Your task to perform on an android device: move a message to another label in the gmail app Image 0: 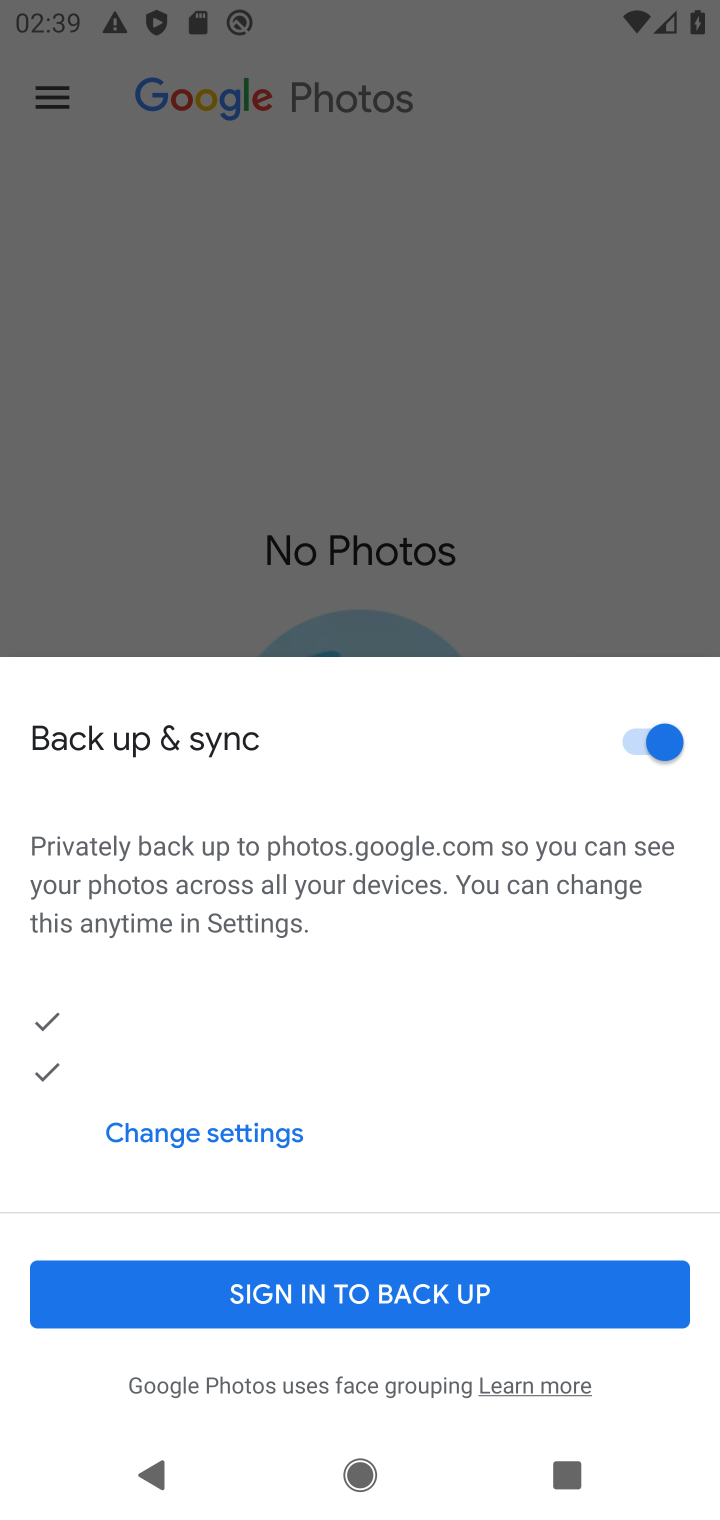
Step 0: press home button
Your task to perform on an android device: move a message to another label in the gmail app Image 1: 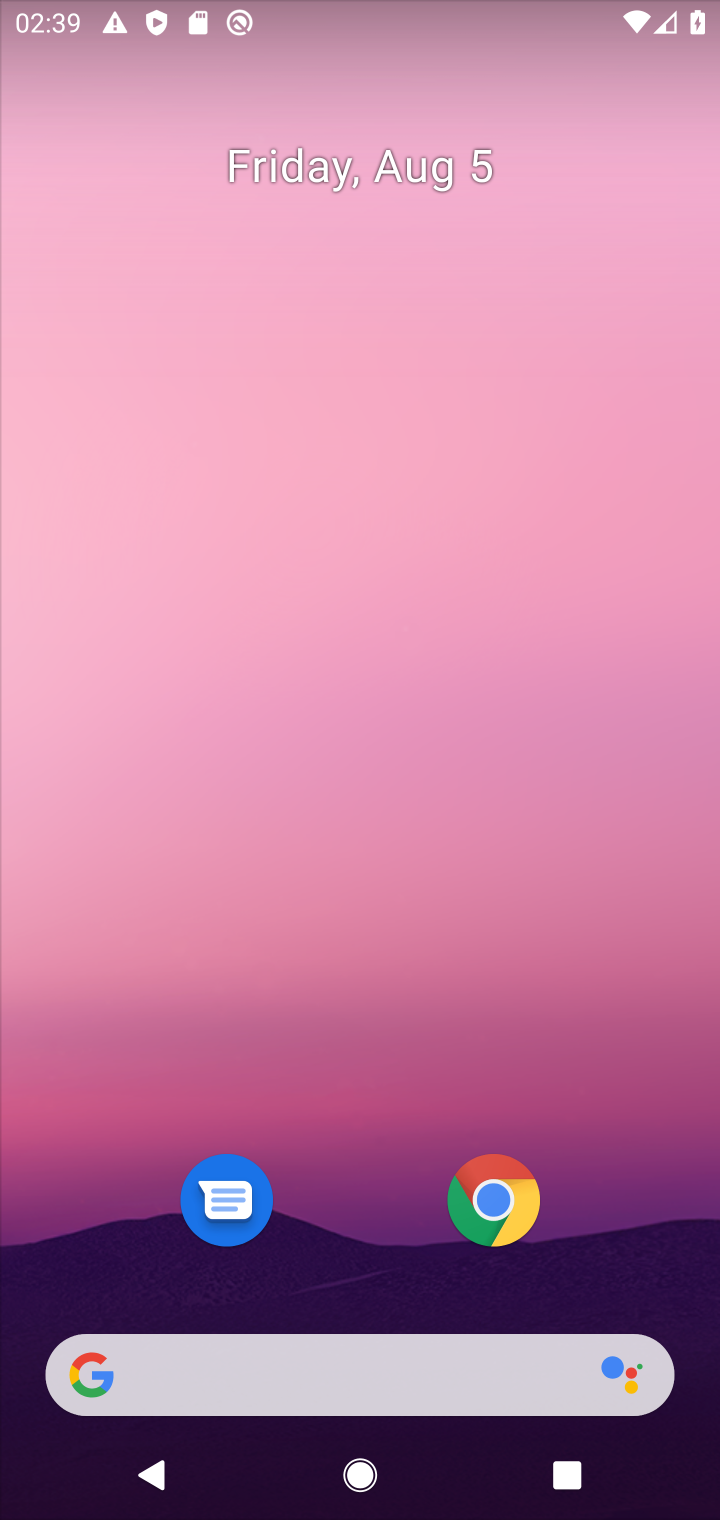
Step 1: drag from (344, 1019) to (347, 436)
Your task to perform on an android device: move a message to another label in the gmail app Image 2: 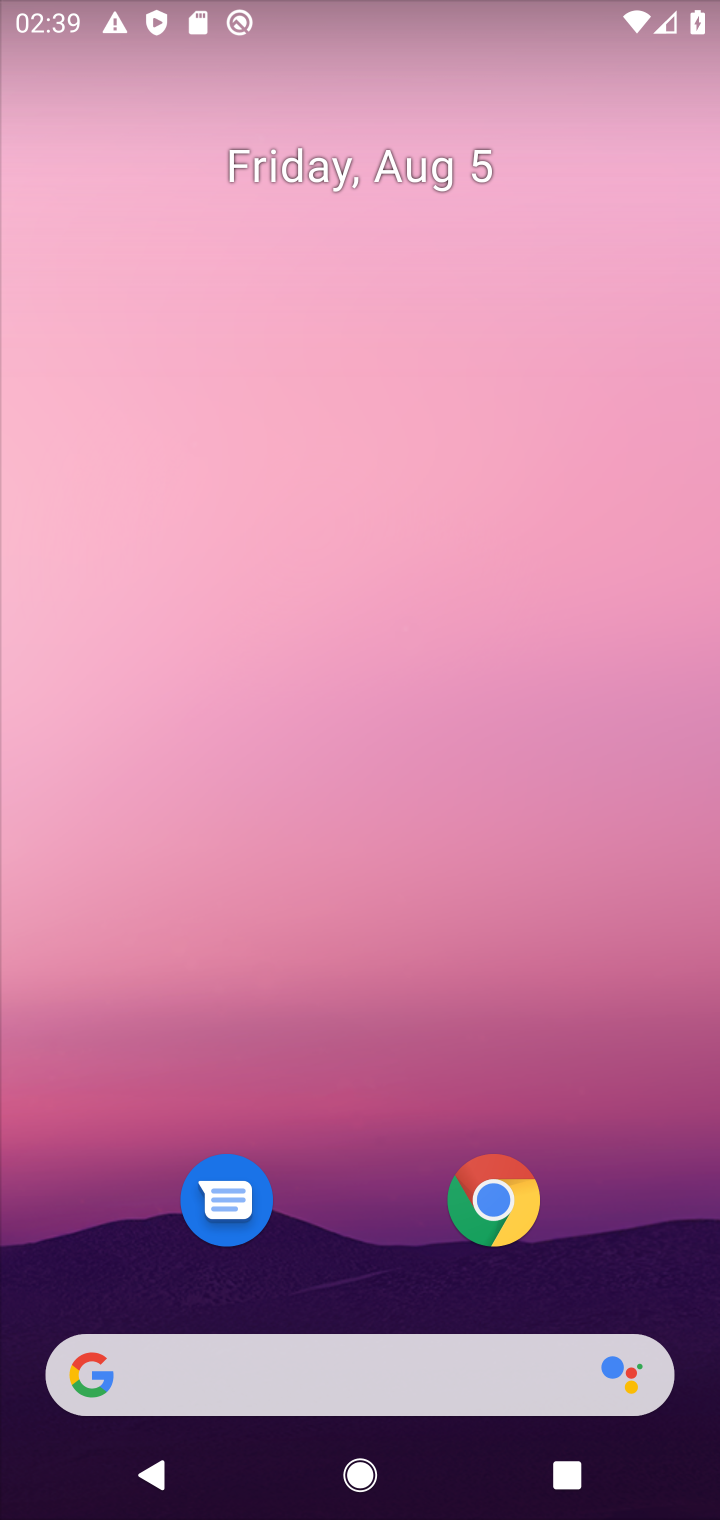
Step 2: drag from (384, 1114) to (384, 283)
Your task to perform on an android device: move a message to another label in the gmail app Image 3: 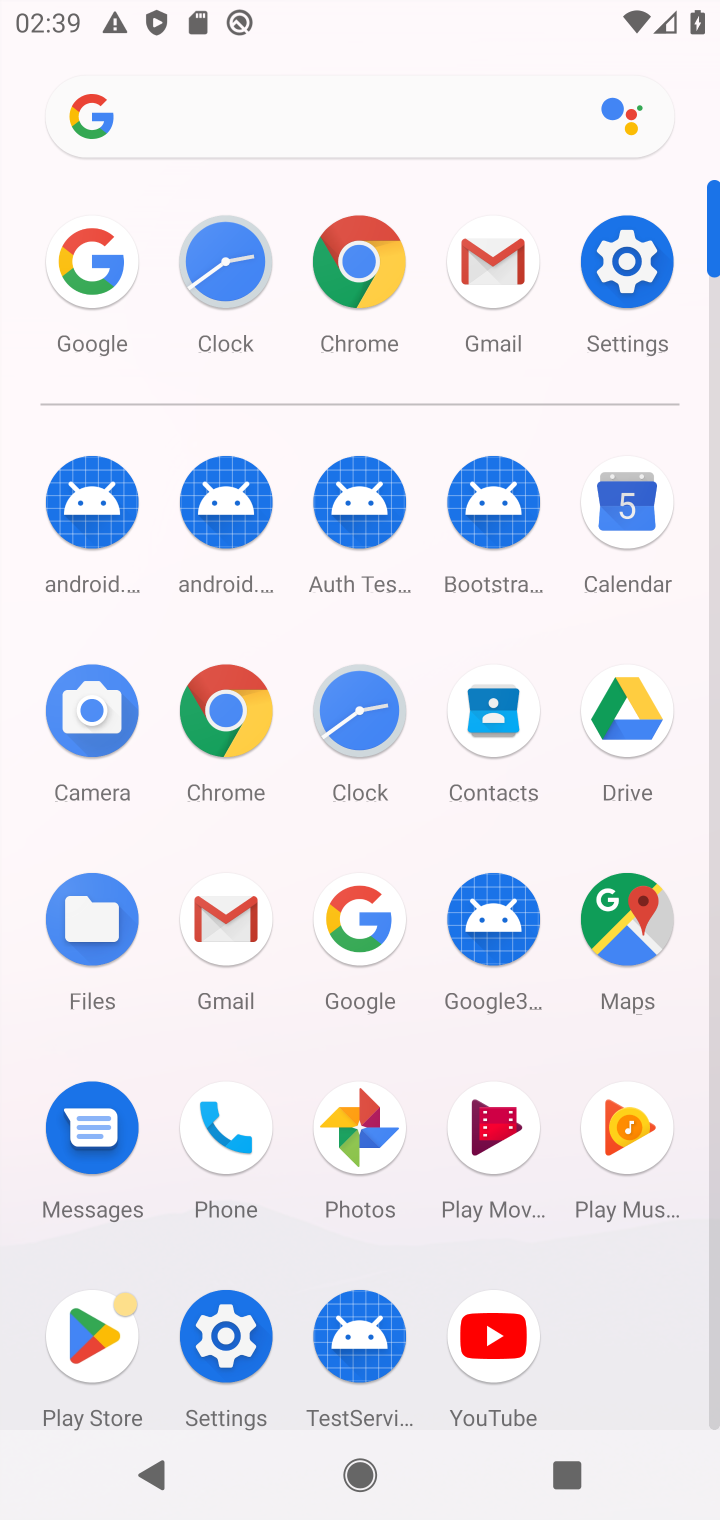
Step 3: click (490, 282)
Your task to perform on an android device: move a message to another label in the gmail app Image 4: 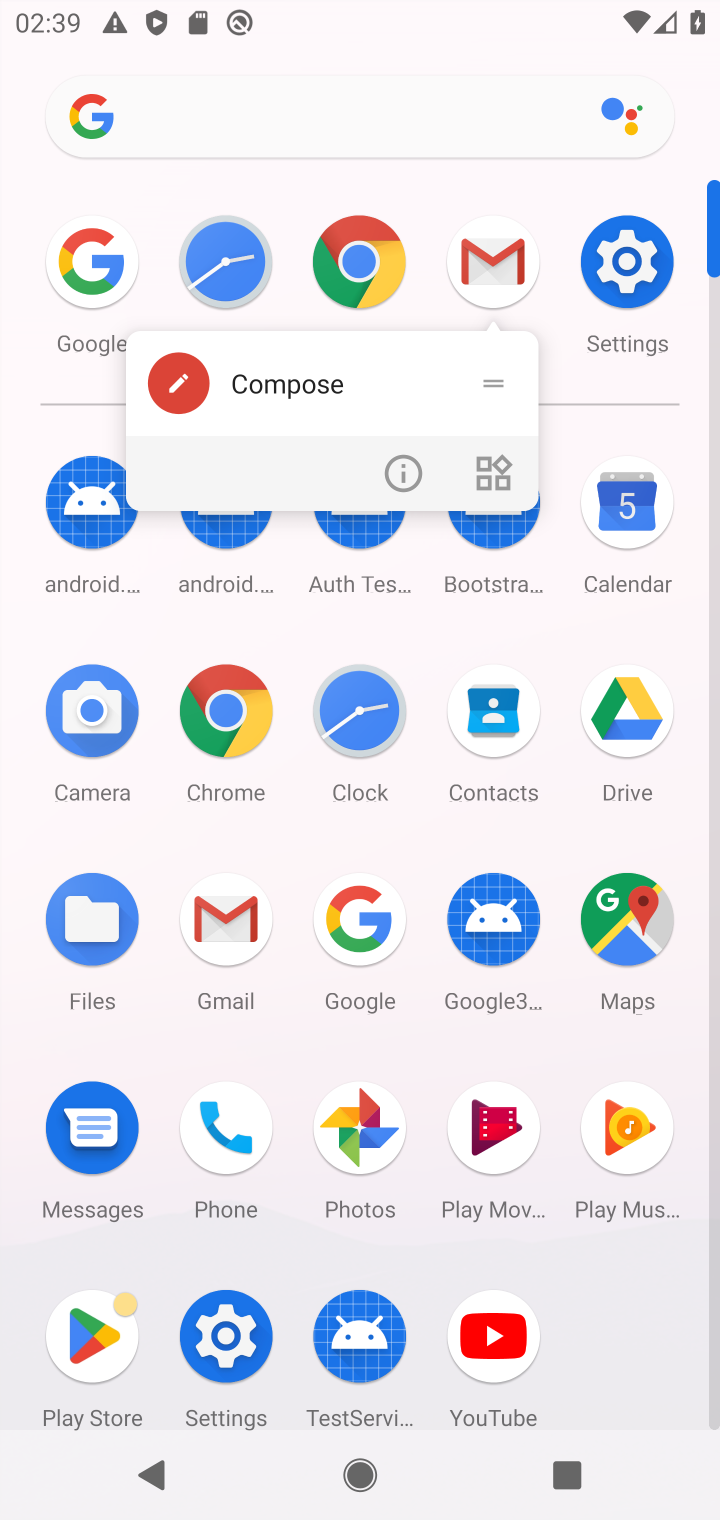
Step 4: click (490, 282)
Your task to perform on an android device: move a message to another label in the gmail app Image 5: 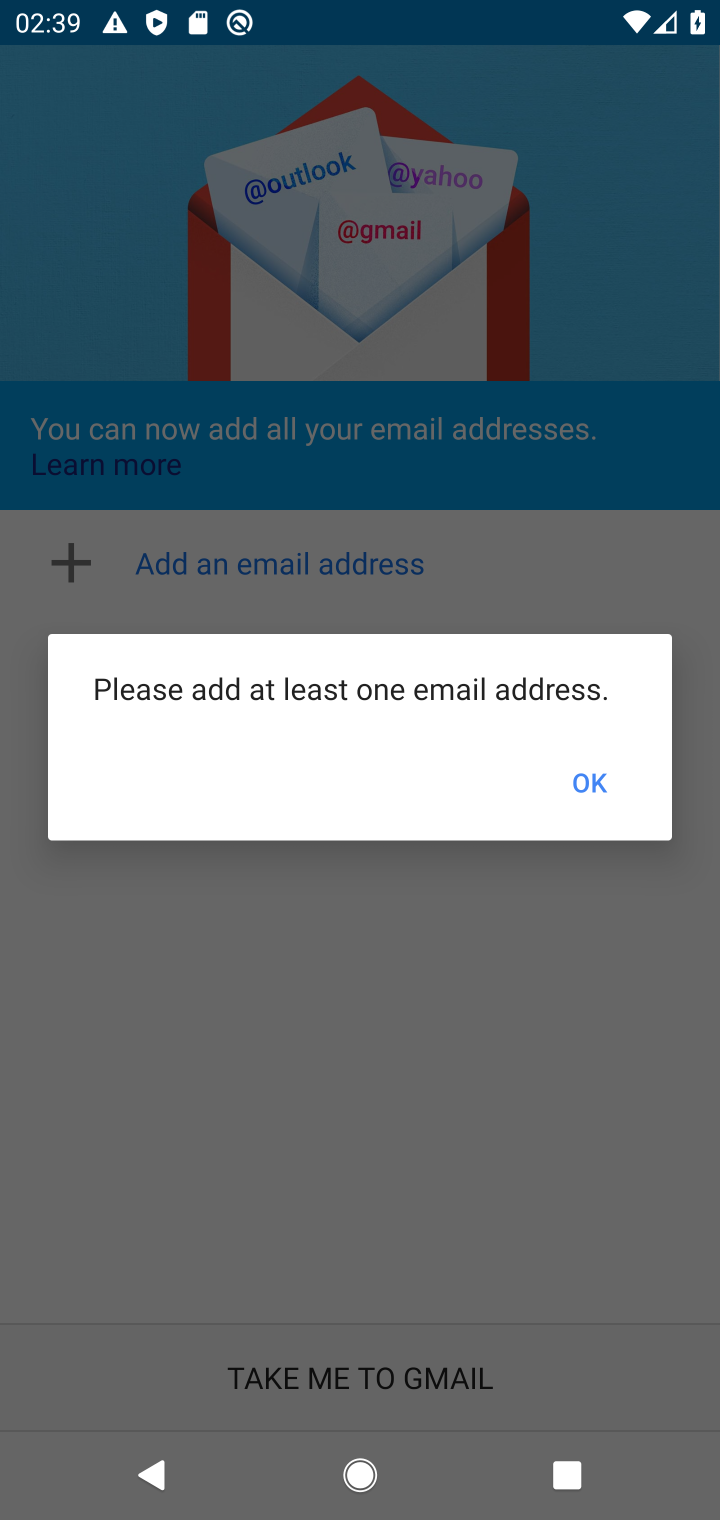
Step 5: click (576, 765)
Your task to perform on an android device: move a message to another label in the gmail app Image 6: 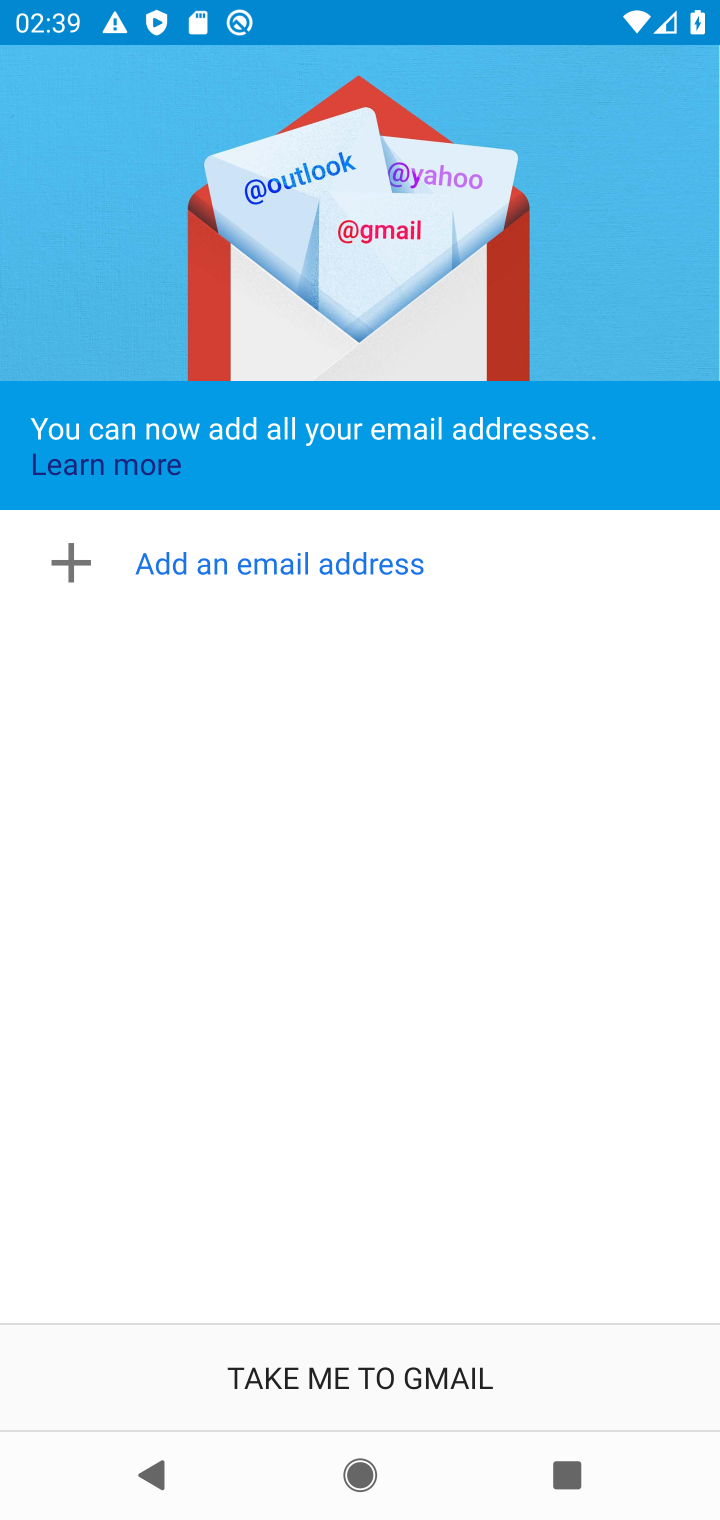
Step 6: task complete